Your task to perform on an android device: make emails show in primary in the gmail app Image 0: 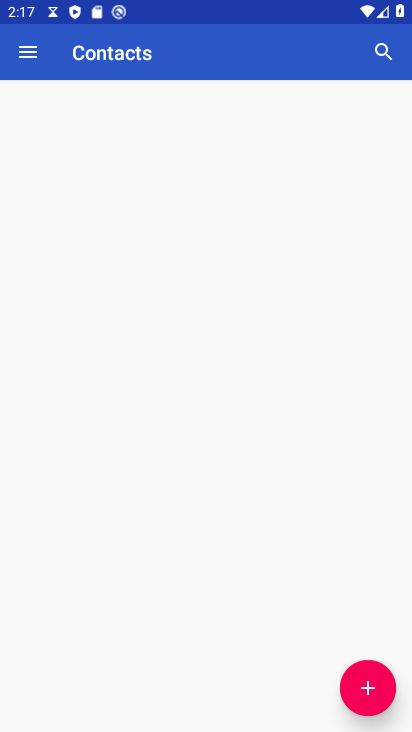
Step 0: drag from (234, 705) to (178, 48)
Your task to perform on an android device: make emails show in primary in the gmail app Image 1: 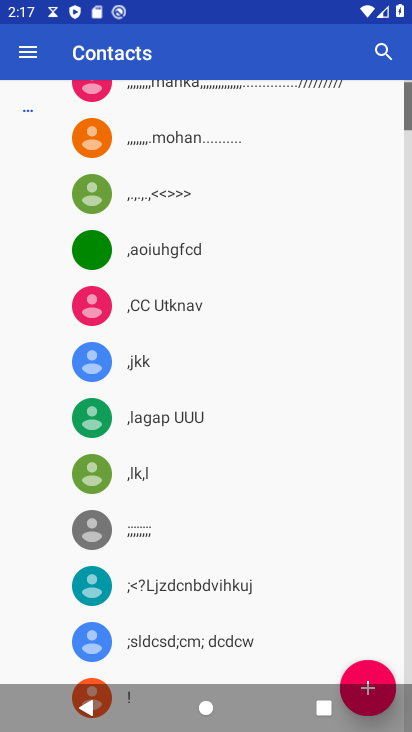
Step 1: press back button
Your task to perform on an android device: make emails show in primary in the gmail app Image 2: 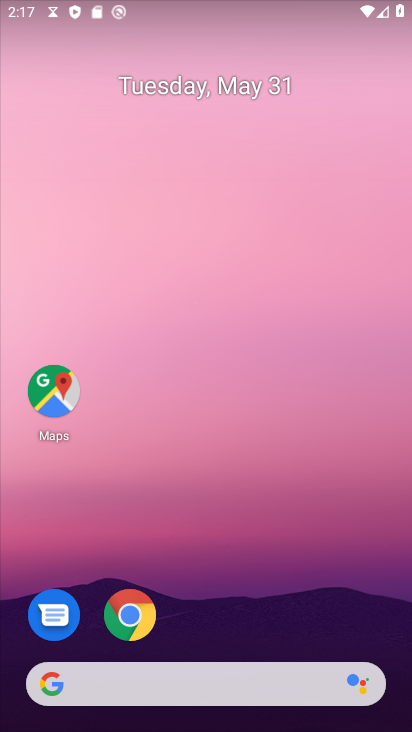
Step 2: drag from (308, 594) to (265, 41)
Your task to perform on an android device: make emails show in primary in the gmail app Image 3: 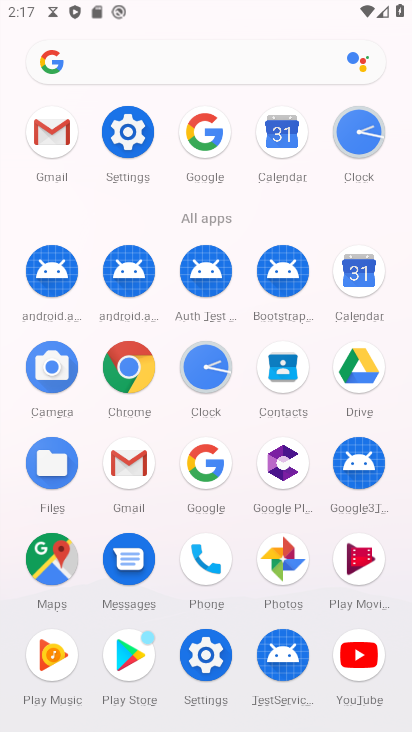
Step 3: click (128, 460)
Your task to perform on an android device: make emails show in primary in the gmail app Image 4: 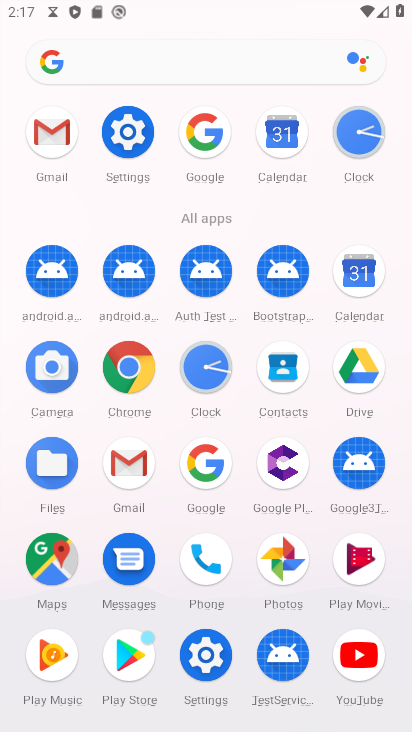
Step 4: click (128, 460)
Your task to perform on an android device: make emails show in primary in the gmail app Image 5: 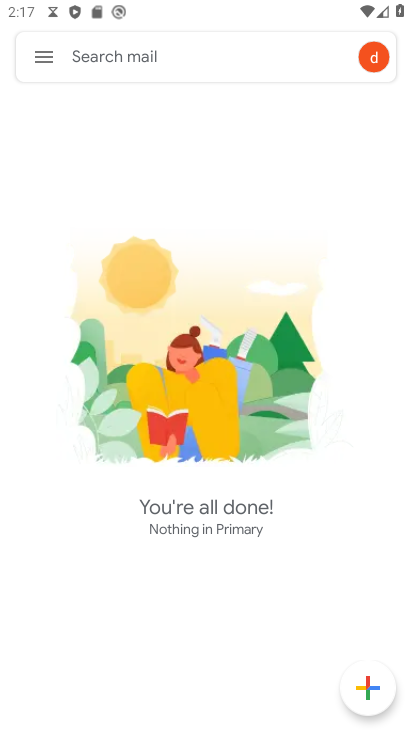
Step 5: click (42, 45)
Your task to perform on an android device: make emails show in primary in the gmail app Image 6: 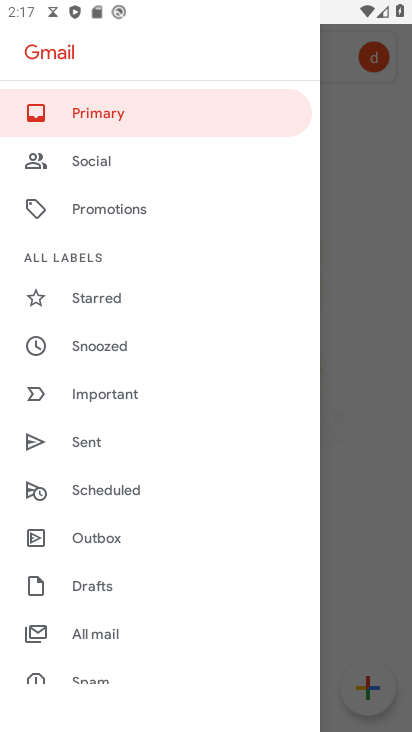
Step 6: click (340, 272)
Your task to perform on an android device: make emails show in primary in the gmail app Image 7: 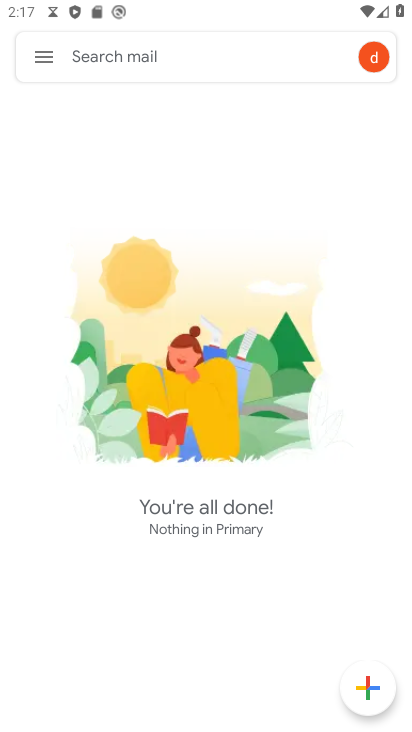
Step 7: press back button
Your task to perform on an android device: make emails show in primary in the gmail app Image 8: 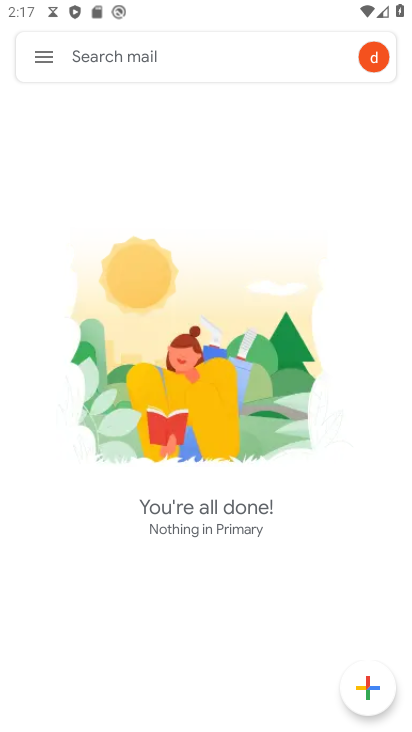
Step 8: press back button
Your task to perform on an android device: make emails show in primary in the gmail app Image 9: 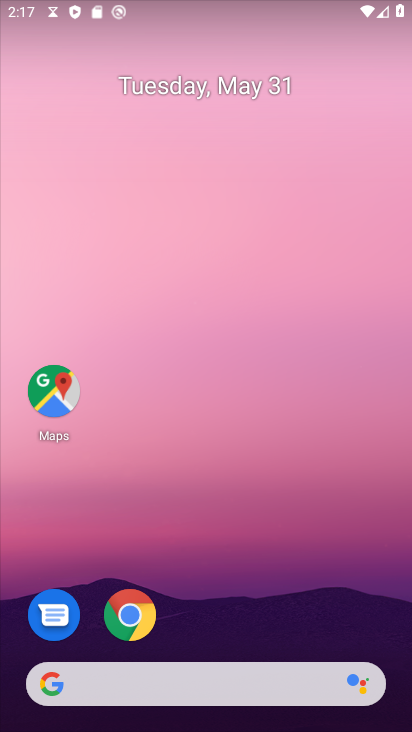
Step 9: drag from (241, 706) to (116, 56)
Your task to perform on an android device: make emails show in primary in the gmail app Image 10: 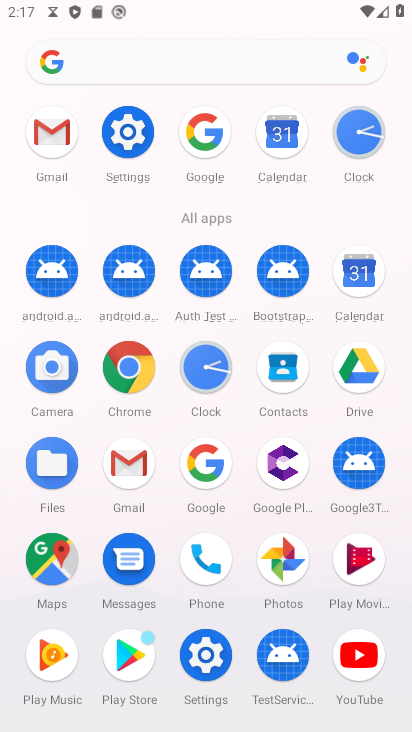
Step 10: click (129, 449)
Your task to perform on an android device: make emails show in primary in the gmail app Image 11: 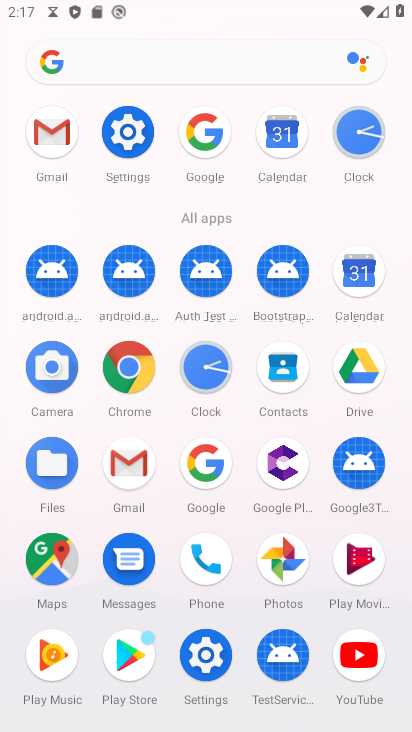
Step 11: click (130, 448)
Your task to perform on an android device: make emails show in primary in the gmail app Image 12: 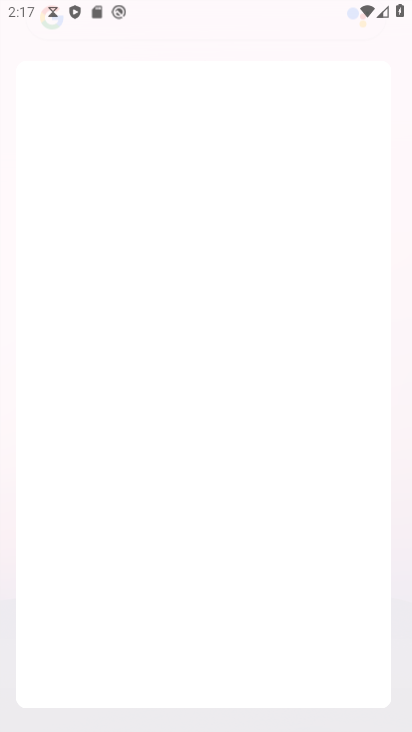
Step 12: click (130, 448)
Your task to perform on an android device: make emails show in primary in the gmail app Image 13: 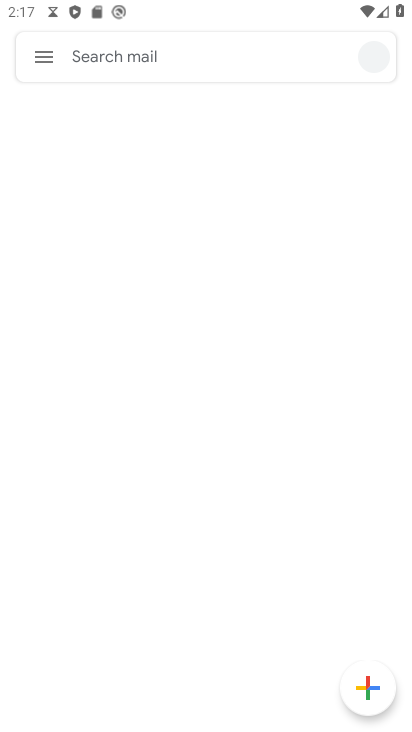
Step 13: click (130, 448)
Your task to perform on an android device: make emails show in primary in the gmail app Image 14: 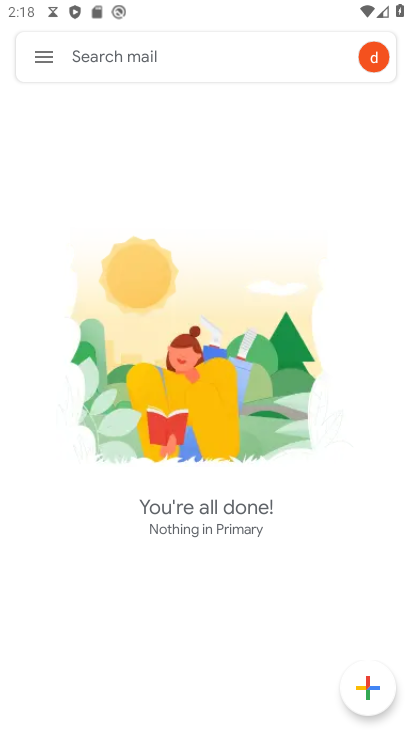
Step 14: click (36, 54)
Your task to perform on an android device: make emails show in primary in the gmail app Image 15: 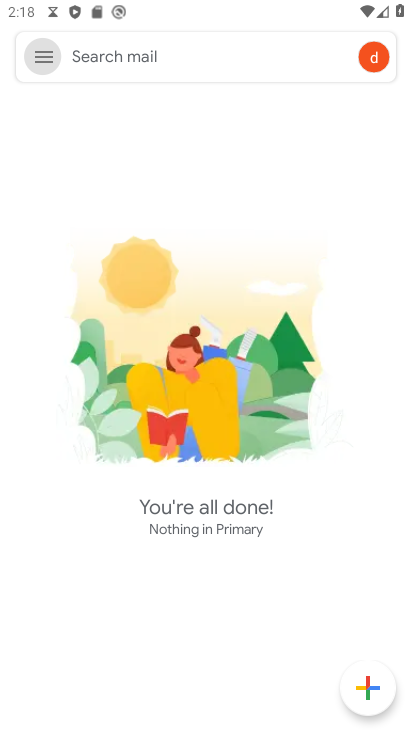
Step 15: click (40, 53)
Your task to perform on an android device: make emails show in primary in the gmail app Image 16: 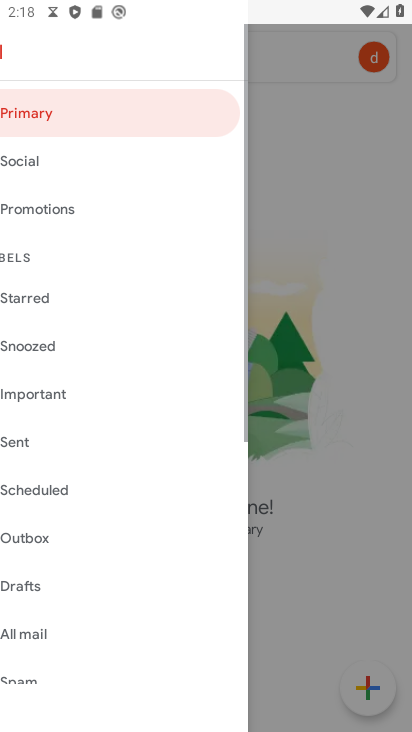
Step 16: click (40, 53)
Your task to perform on an android device: make emails show in primary in the gmail app Image 17: 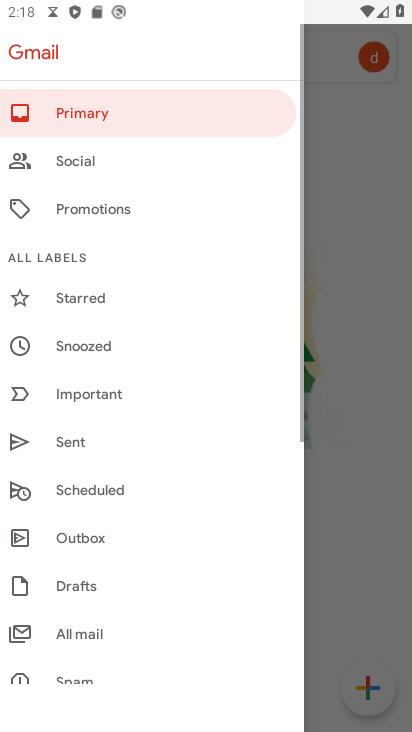
Step 17: click (40, 53)
Your task to perform on an android device: make emails show in primary in the gmail app Image 18: 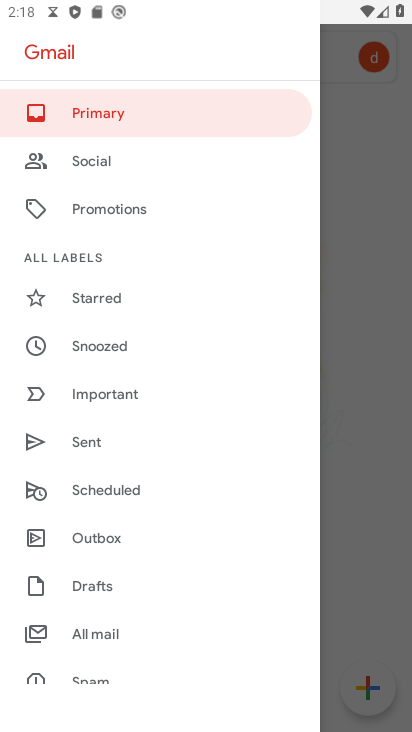
Step 18: drag from (149, 496) to (180, 211)
Your task to perform on an android device: make emails show in primary in the gmail app Image 19: 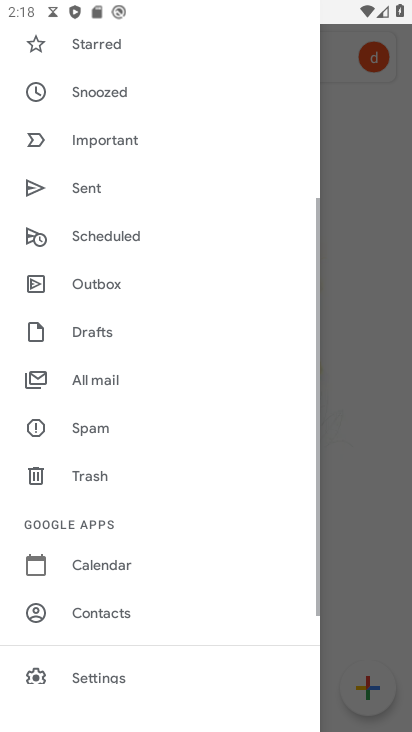
Step 19: drag from (205, 428) to (177, 47)
Your task to perform on an android device: make emails show in primary in the gmail app Image 20: 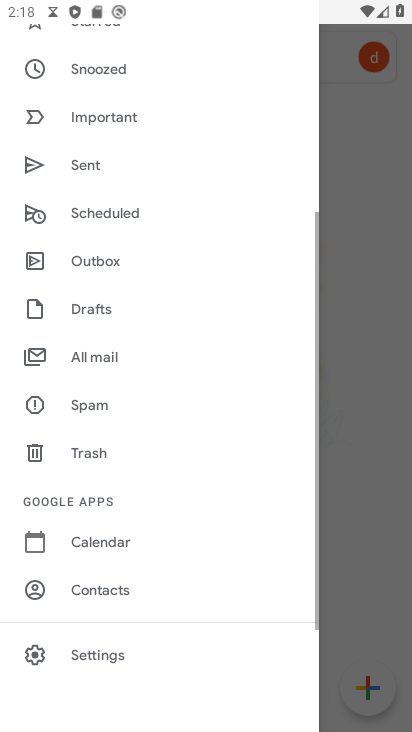
Step 20: drag from (122, 457) to (120, 11)
Your task to perform on an android device: make emails show in primary in the gmail app Image 21: 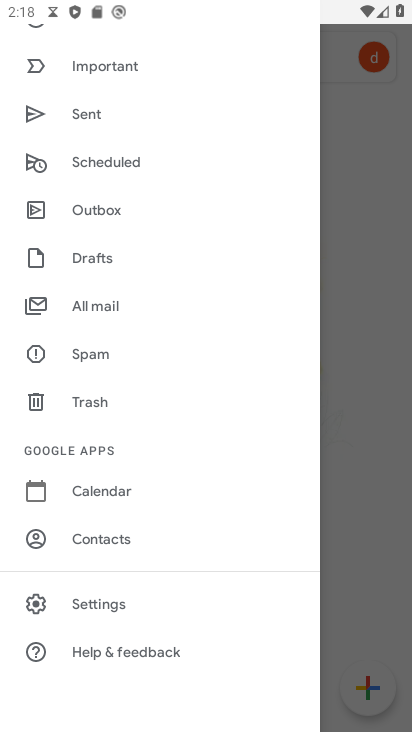
Step 21: click (94, 600)
Your task to perform on an android device: make emails show in primary in the gmail app Image 22: 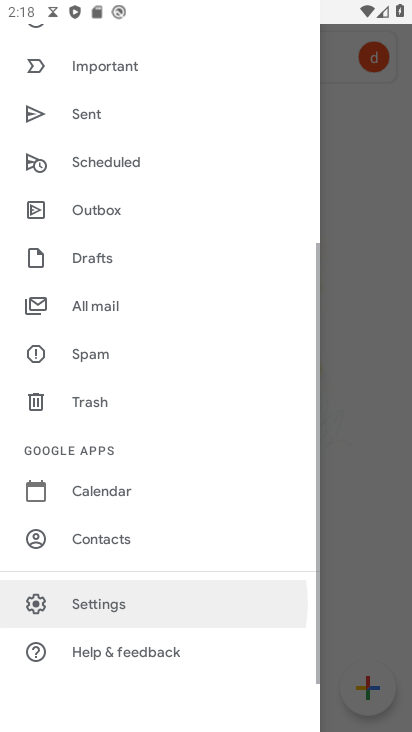
Step 22: click (94, 600)
Your task to perform on an android device: make emails show in primary in the gmail app Image 23: 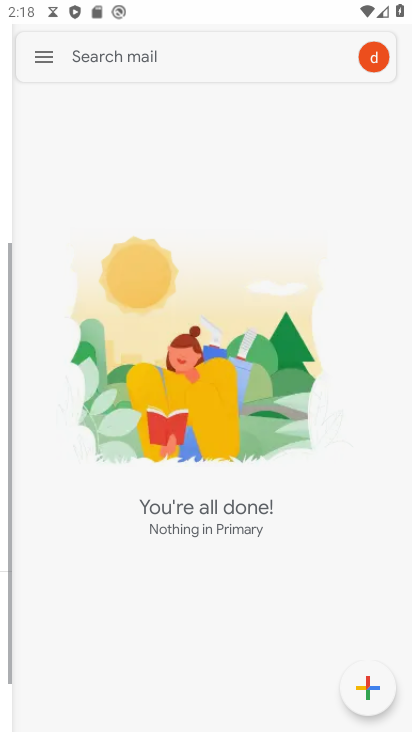
Step 23: click (98, 595)
Your task to perform on an android device: make emails show in primary in the gmail app Image 24: 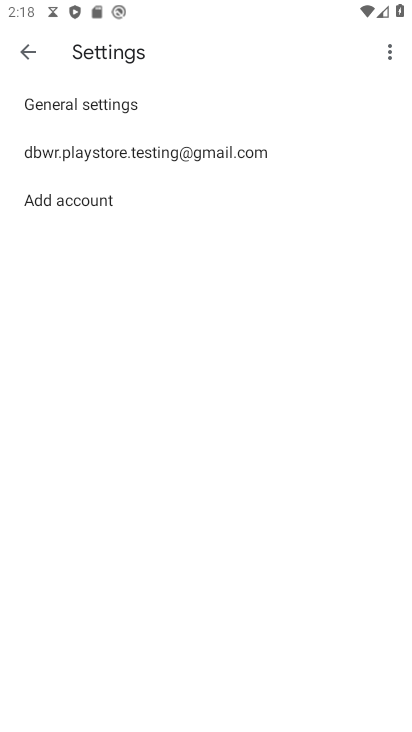
Step 24: click (103, 148)
Your task to perform on an android device: make emails show in primary in the gmail app Image 25: 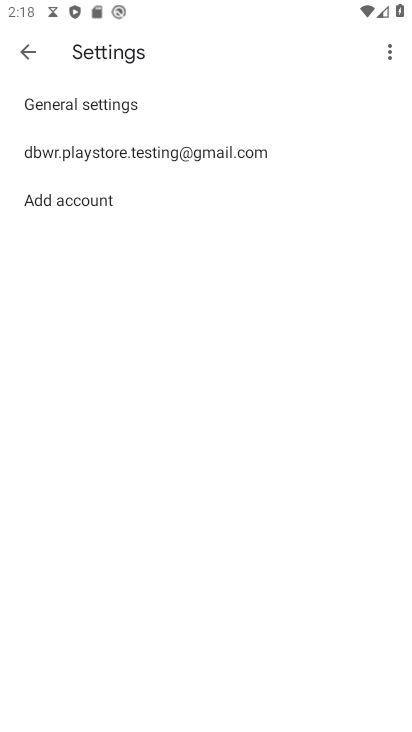
Step 25: click (103, 148)
Your task to perform on an android device: make emails show in primary in the gmail app Image 26: 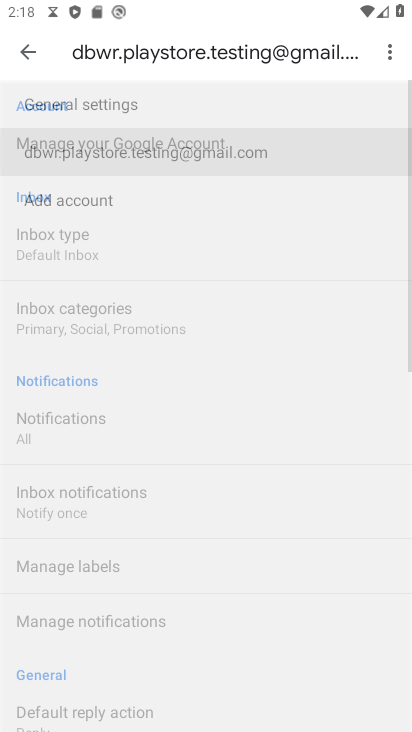
Step 26: click (103, 148)
Your task to perform on an android device: make emails show in primary in the gmail app Image 27: 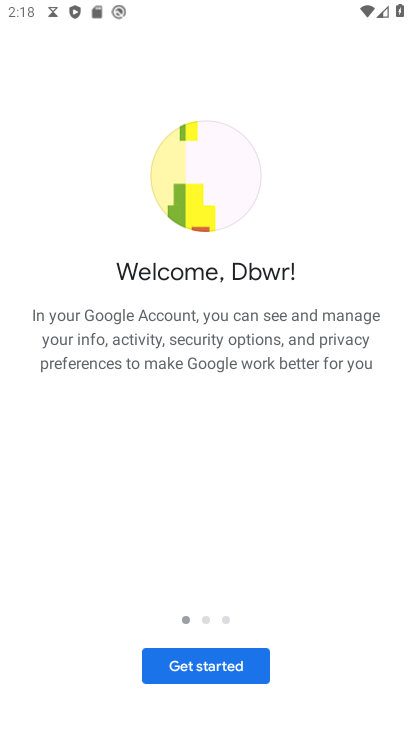
Step 27: press back button
Your task to perform on an android device: make emails show in primary in the gmail app Image 28: 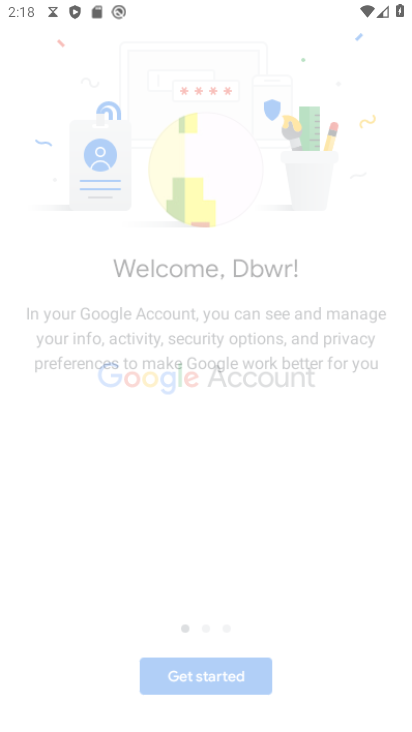
Step 28: click (239, 667)
Your task to perform on an android device: make emails show in primary in the gmail app Image 29: 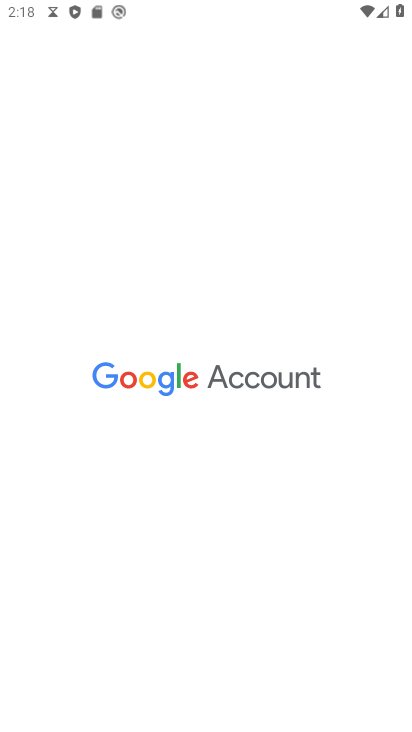
Step 29: click (239, 667)
Your task to perform on an android device: make emails show in primary in the gmail app Image 30: 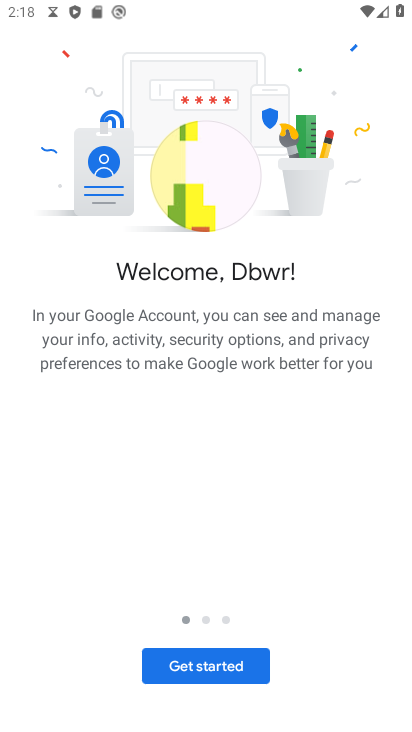
Step 30: click (229, 661)
Your task to perform on an android device: make emails show in primary in the gmail app Image 31: 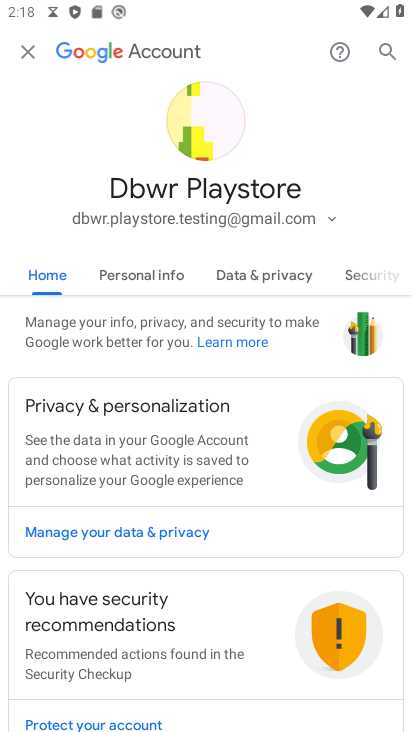
Step 31: click (36, 53)
Your task to perform on an android device: make emails show in primary in the gmail app Image 32: 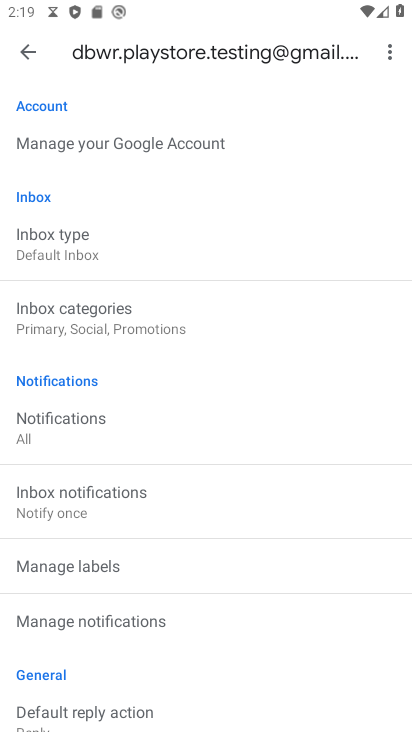
Step 32: click (43, 311)
Your task to perform on an android device: make emails show in primary in the gmail app Image 33: 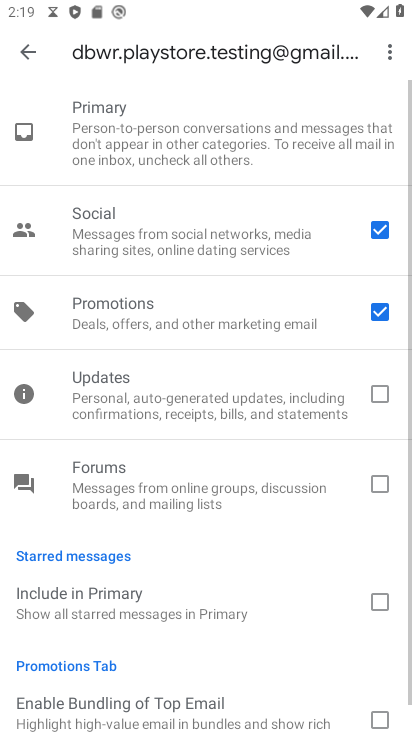
Step 33: click (131, 127)
Your task to perform on an android device: make emails show in primary in the gmail app Image 34: 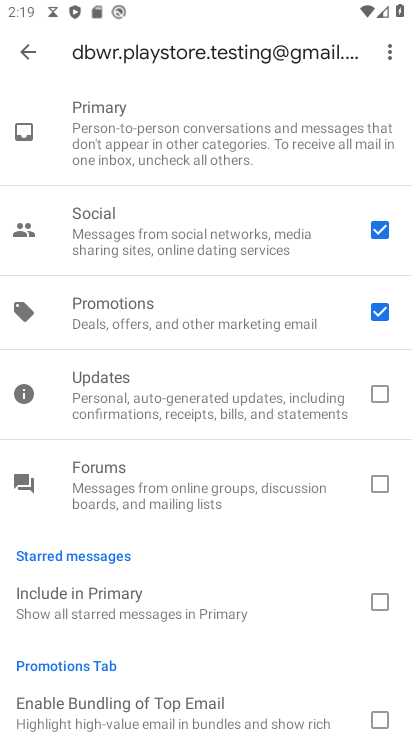
Step 34: click (134, 143)
Your task to perform on an android device: make emails show in primary in the gmail app Image 35: 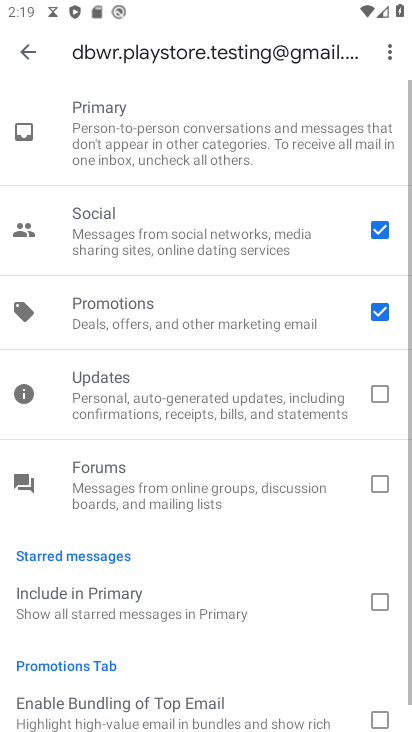
Step 35: task complete